Your task to perform on an android device: turn off notifications settings in the gmail app Image 0: 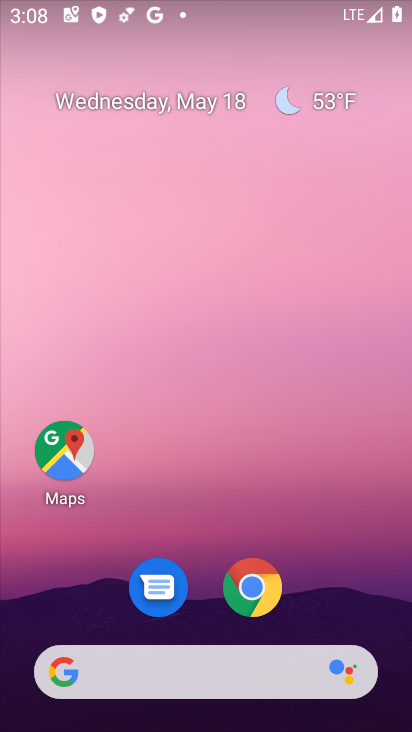
Step 0: drag from (233, 613) to (243, 266)
Your task to perform on an android device: turn off notifications settings in the gmail app Image 1: 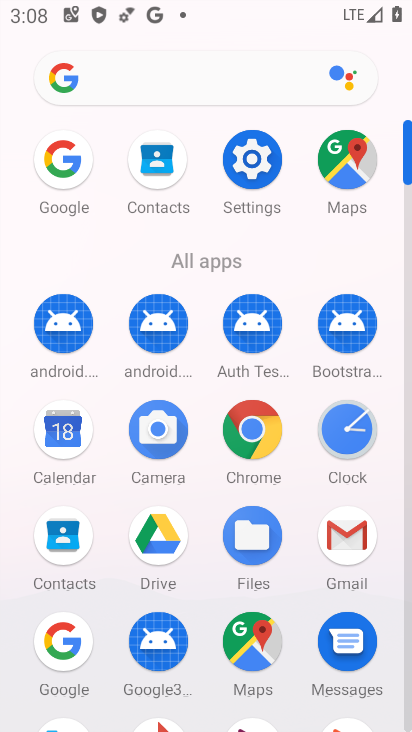
Step 1: click (358, 554)
Your task to perform on an android device: turn off notifications settings in the gmail app Image 2: 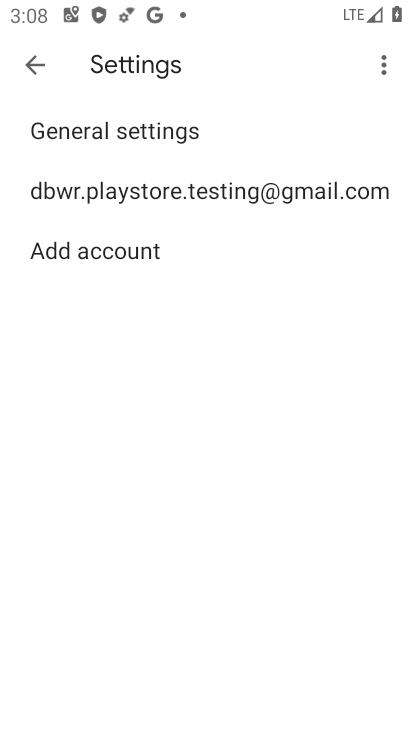
Step 2: click (150, 138)
Your task to perform on an android device: turn off notifications settings in the gmail app Image 3: 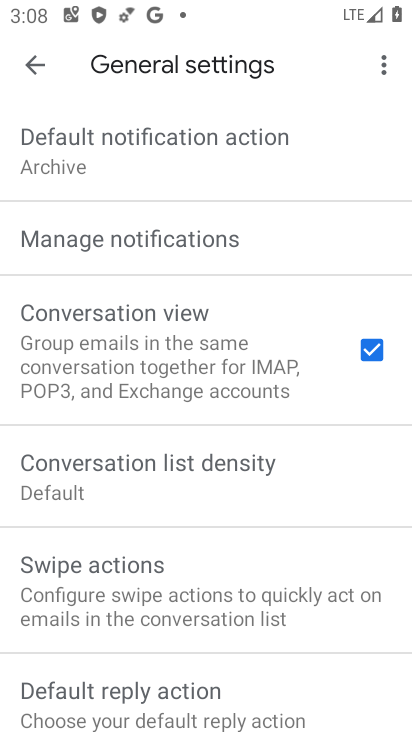
Step 3: click (188, 240)
Your task to perform on an android device: turn off notifications settings in the gmail app Image 4: 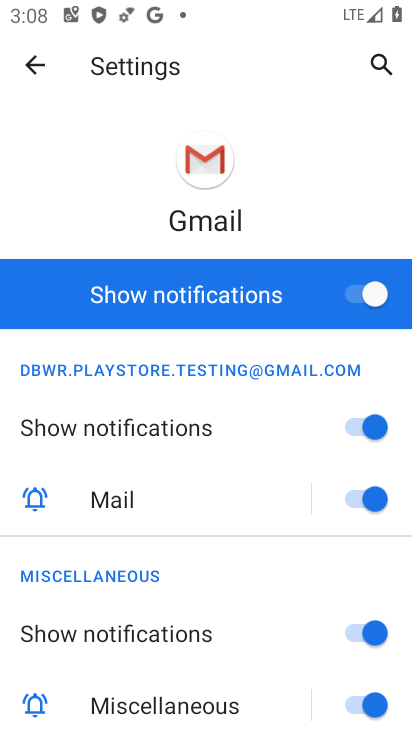
Step 4: click (348, 305)
Your task to perform on an android device: turn off notifications settings in the gmail app Image 5: 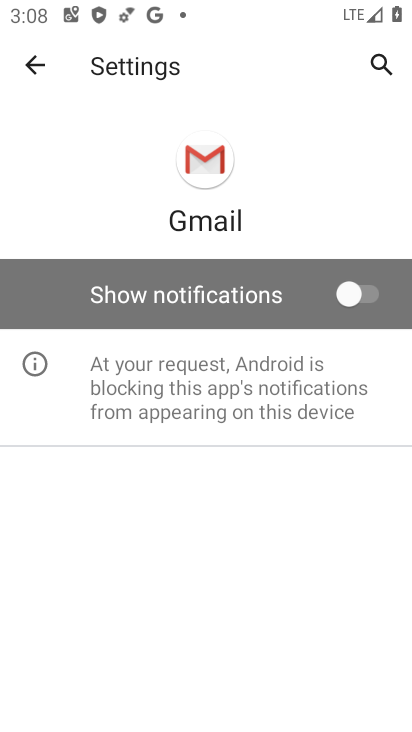
Step 5: task complete